Your task to perform on an android device: turn on translation in the chrome app Image 0: 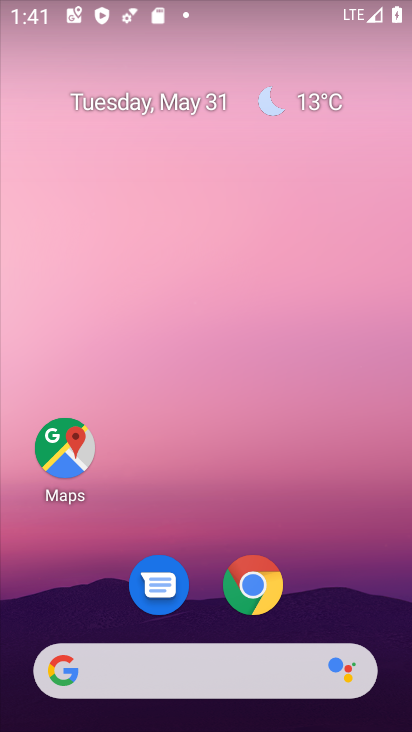
Step 0: click (263, 583)
Your task to perform on an android device: turn on translation in the chrome app Image 1: 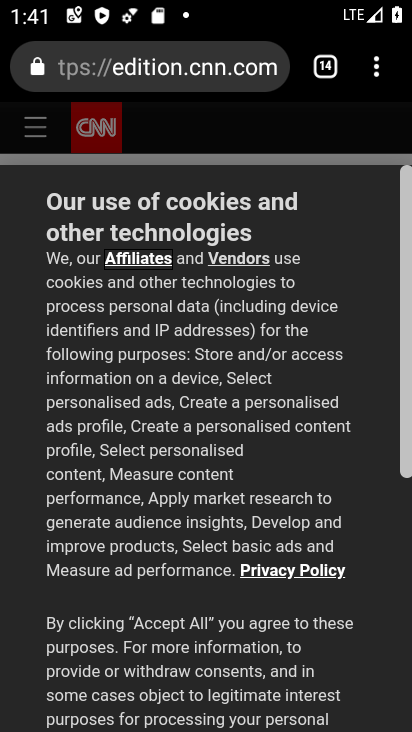
Step 1: click (379, 75)
Your task to perform on an android device: turn on translation in the chrome app Image 2: 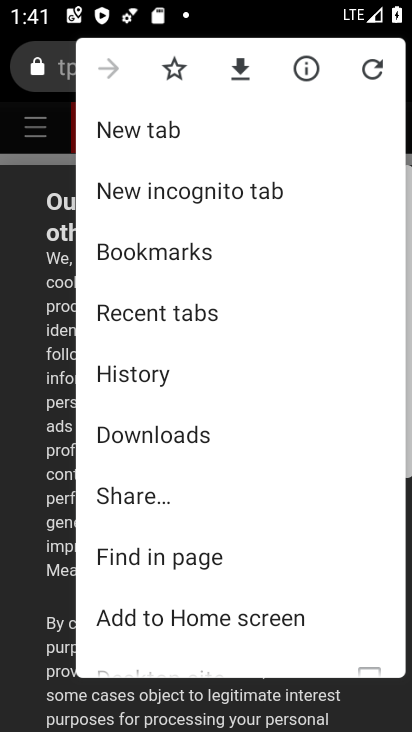
Step 2: drag from (284, 573) to (294, 185)
Your task to perform on an android device: turn on translation in the chrome app Image 3: 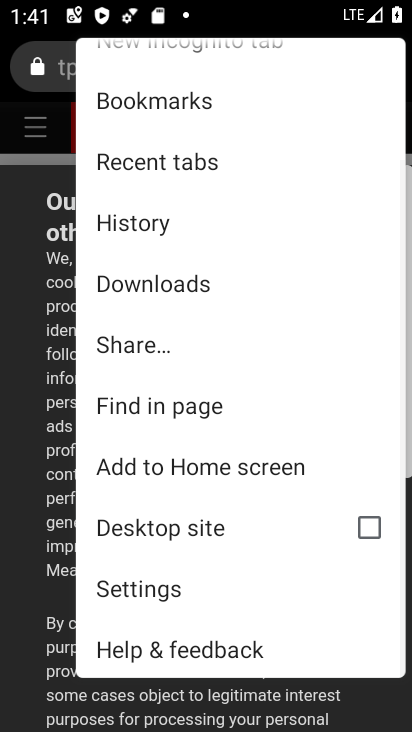
Step 3: click (187, 579)
Your task to perform on an android device: turn on translation in the chrome app Image 4: 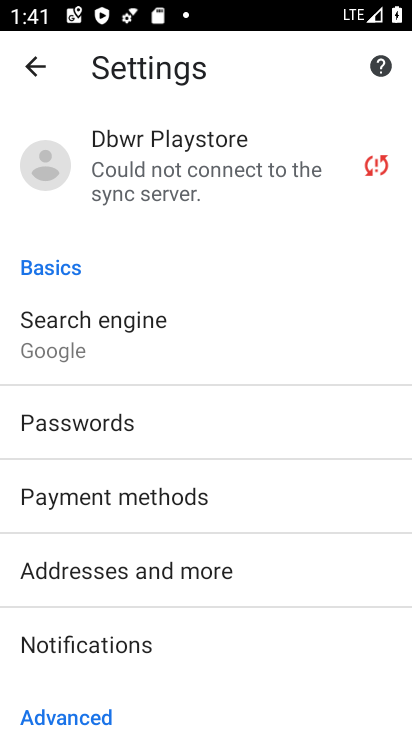
Step 4: drag from (260, 562) to (285, 252)
Your task to perform on an android device: turn on translation in the chrome app Image 5: 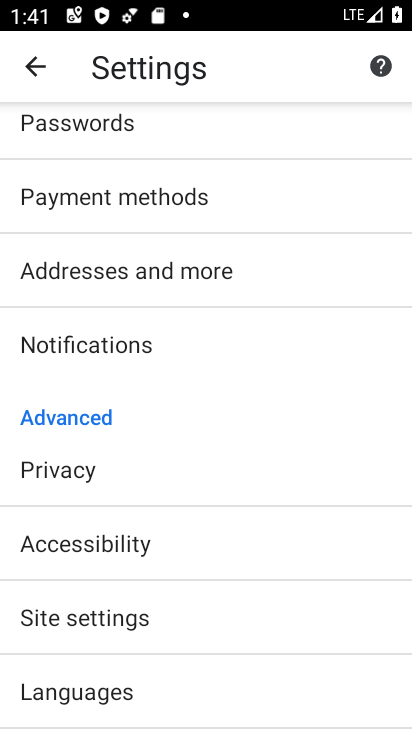
Step 5: click (290, 684)
Your task to perform on an android device: turn on translation in the chrome app Image 6: 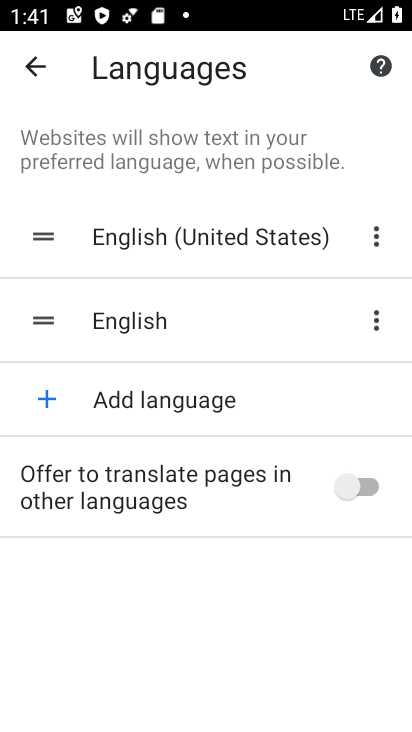
Step 6: click (355, 484)
Your task to perform on an android device: turn on translation in the chrome app Image 7: 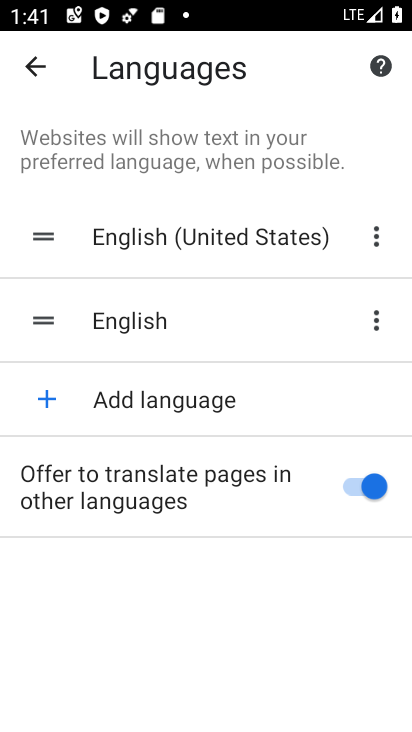
Step 7: task complete